Your task to perform on an android device: Add "macbook" to the cart on newegg Image 0: 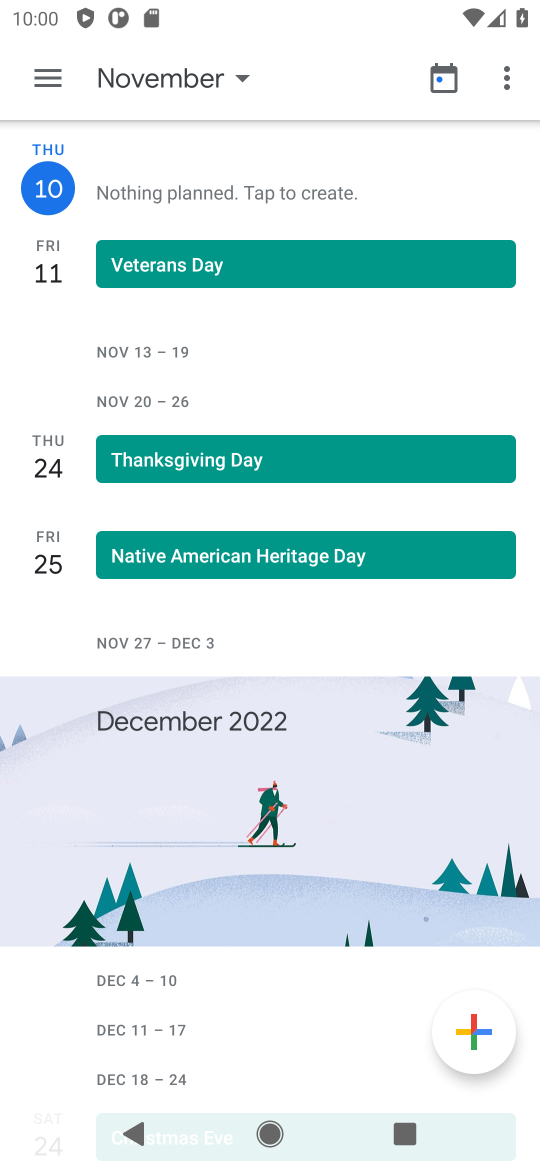
Step 0: press home button
Your task to perform on an android device: Add "macbook" to the cart on newegg Image 1: 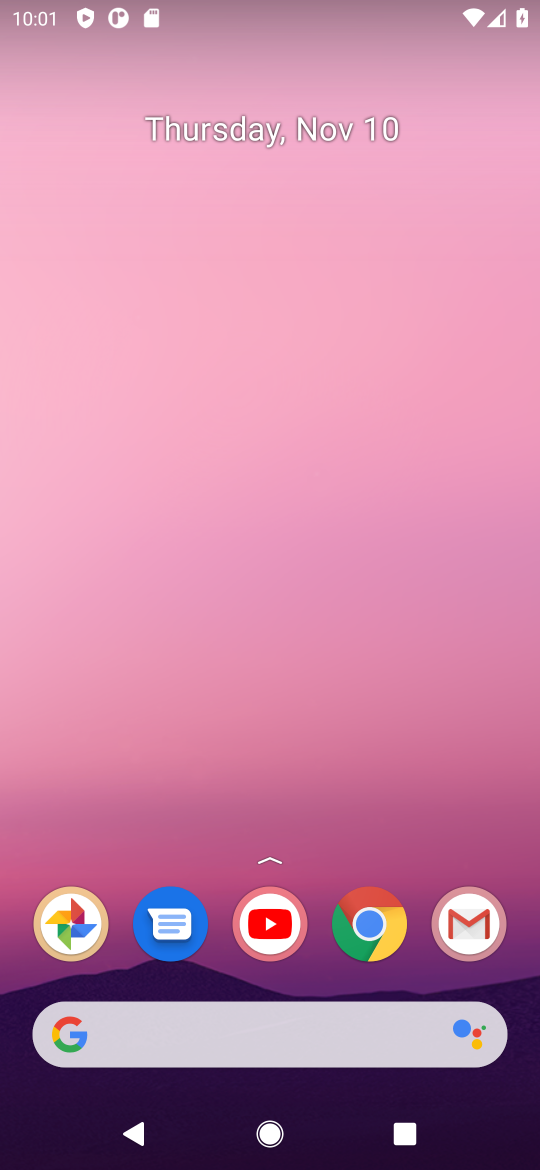
Step 1: click (371, 930)
Your task to perform on an android device: Add "macbook" to the cart on newegg Image 2: 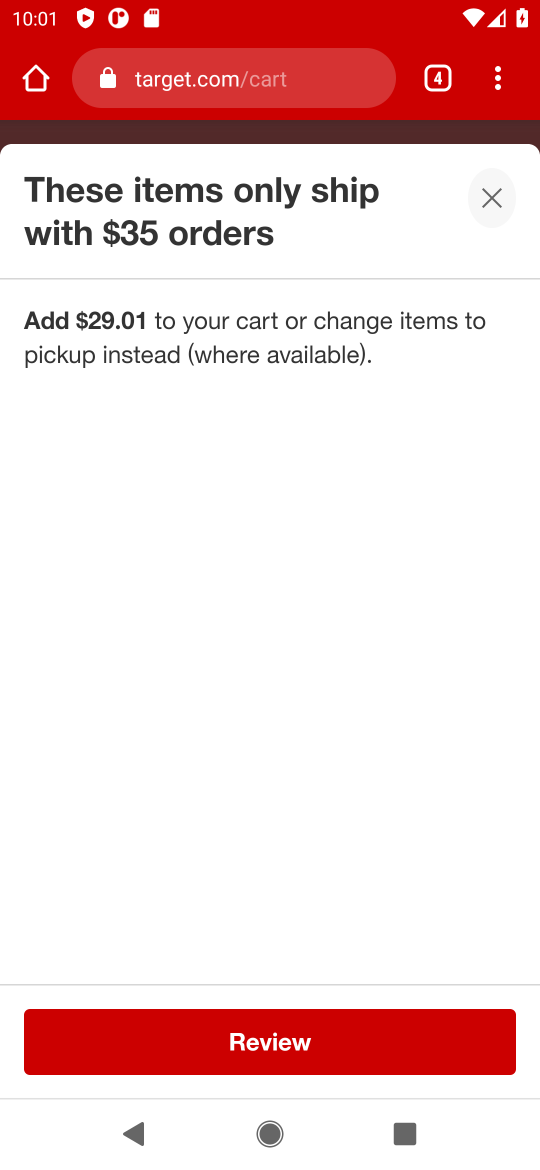
Step 2: click (225, 75)
Your task to perform on an android device: Add "macbook" to the cart on newegg Image 3: 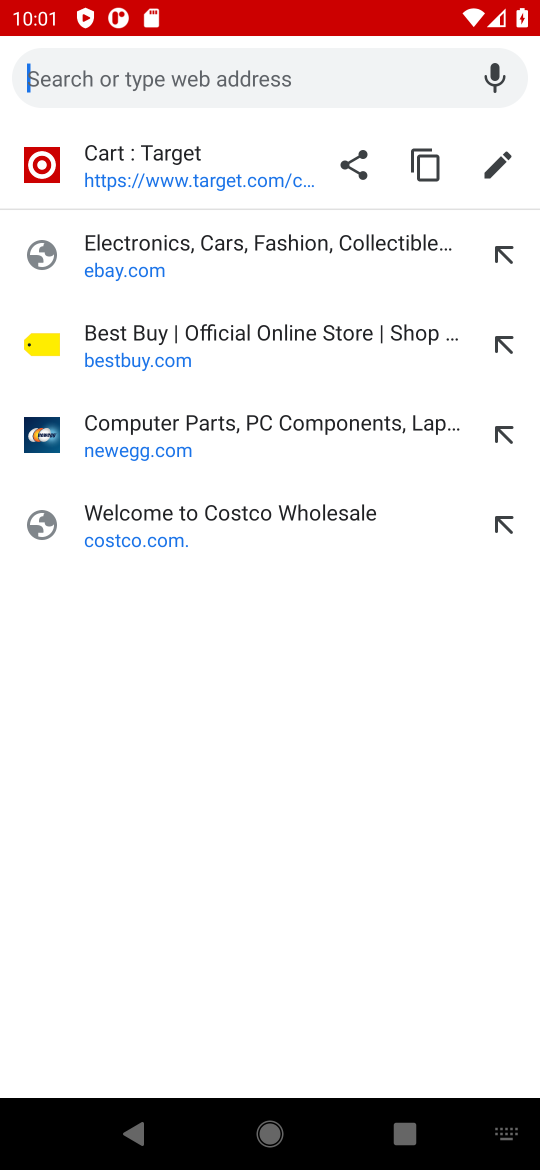
Step 3: click (118, 449)
Your task to perform on an android device: Add "macbook" to the cart on newegg Image 4: 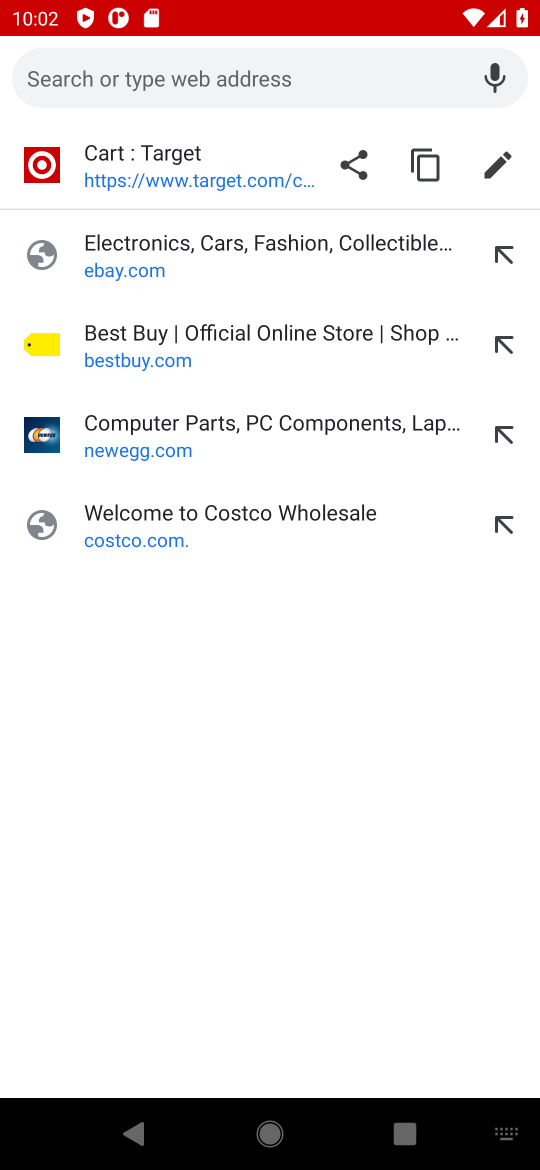
Step 4: click (108, 452)
Your task to perform on an android device: Add "macbook" to the cart on newegg Image 5: 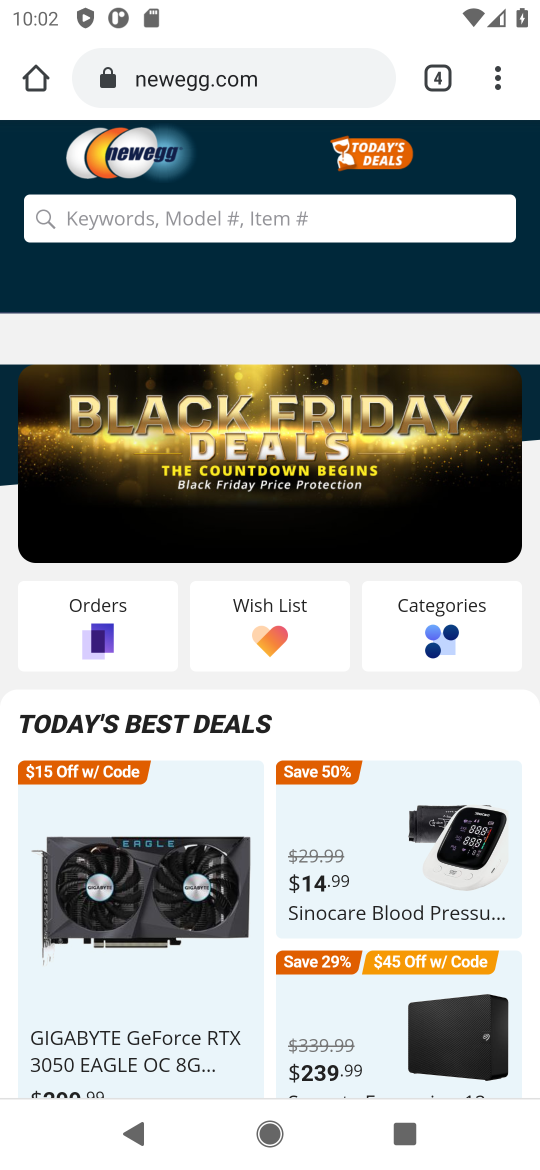
Step 5: click (160, 224)
Your task to perform on an android device: Add "macbook" to the cart on newegg Image 6: 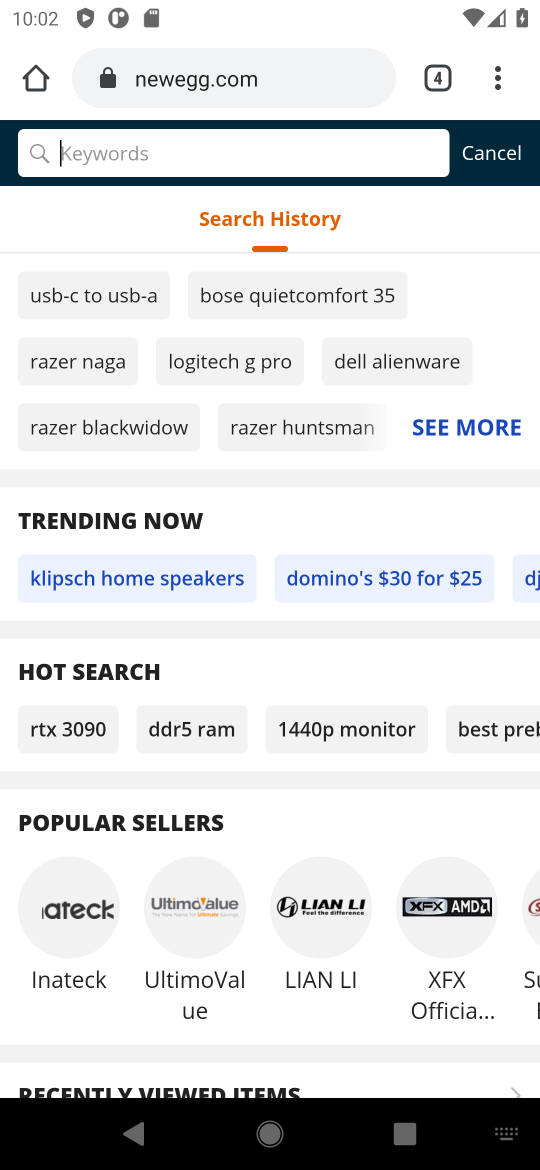
Step 6: type "macbook"
Your task to perform on an android device: Add "macbook" to the cart on newegg Image 7: 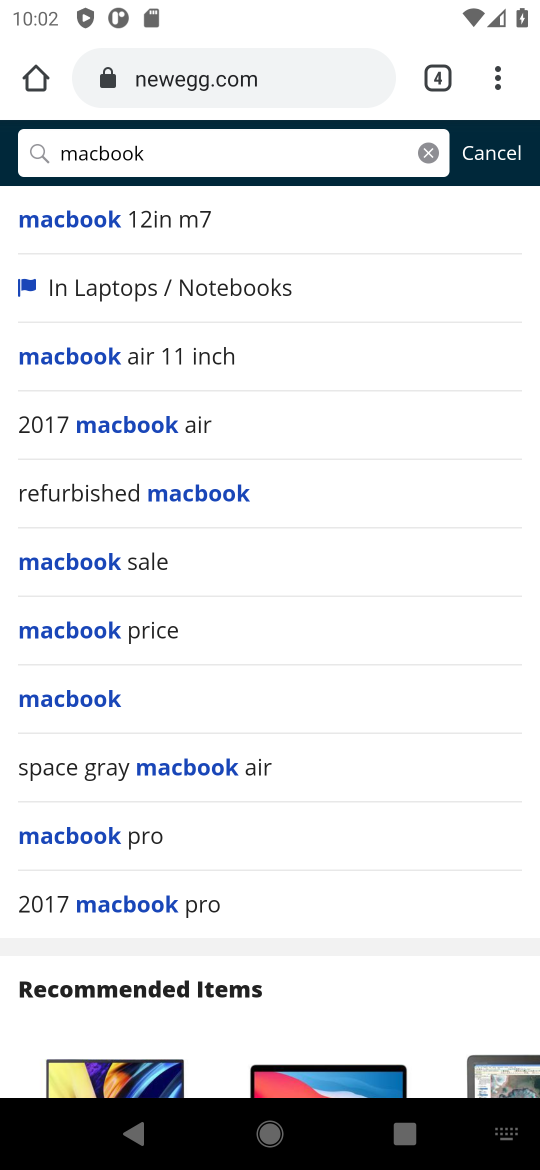
Step 7: click (84, 703)
Your task to perform on an android device: Add "macbook" to the cart on newegg Image 8: 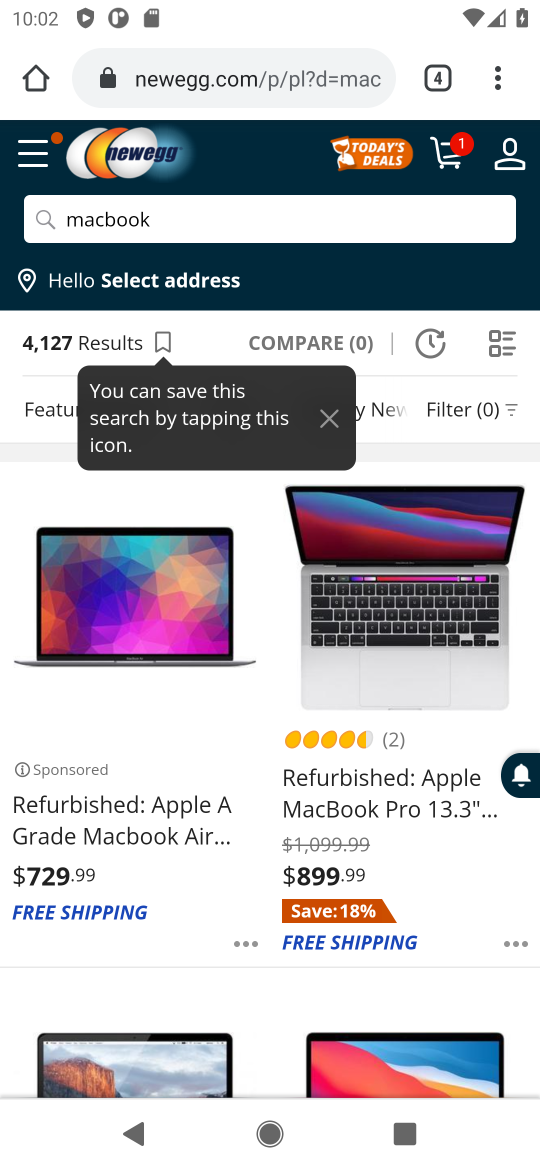
Step 8: click (127, 667)
Your task to perform on an android device: Add "macbook" to the cart on newegg Image 9: 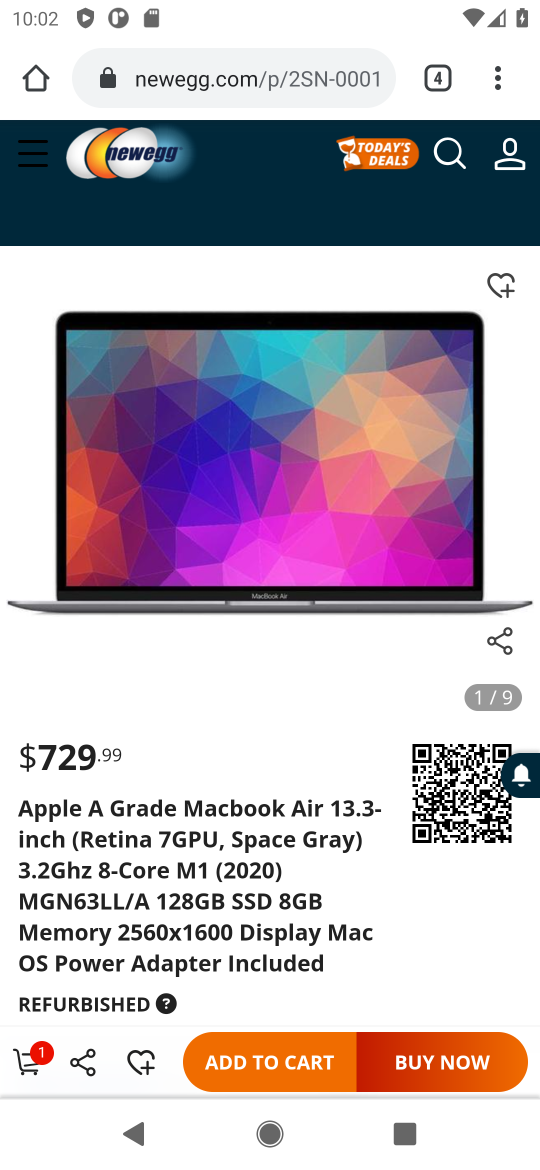
Step 9: click (246, 1045)
Your task to perform on an android device: Add "macbook" to the cart on newegg Image 10: 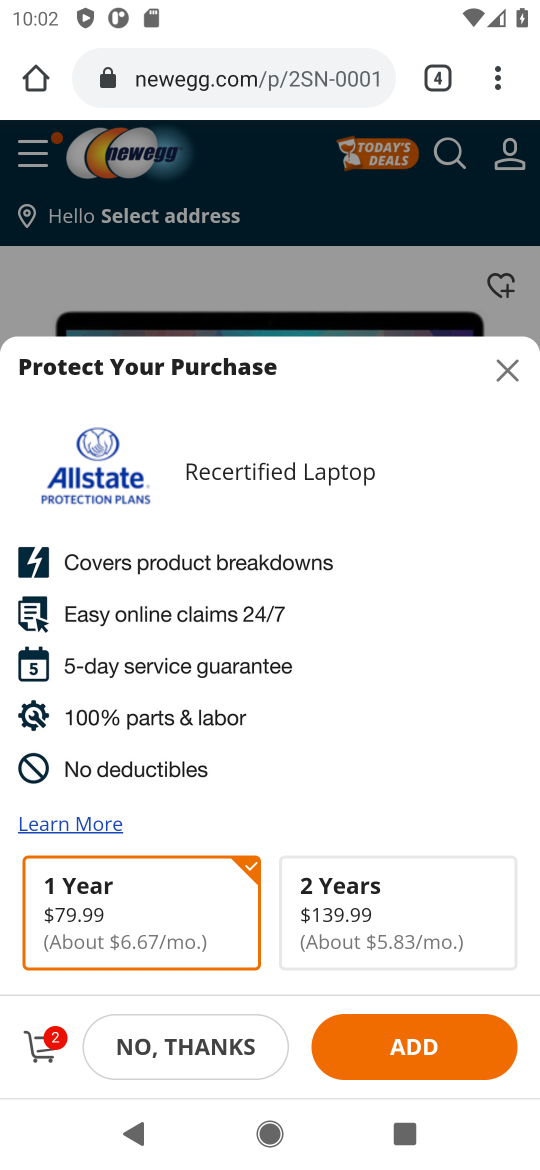
Step 10: task complete